Your task to perform on an android device: toggle data saver in the chrome app Image 0: 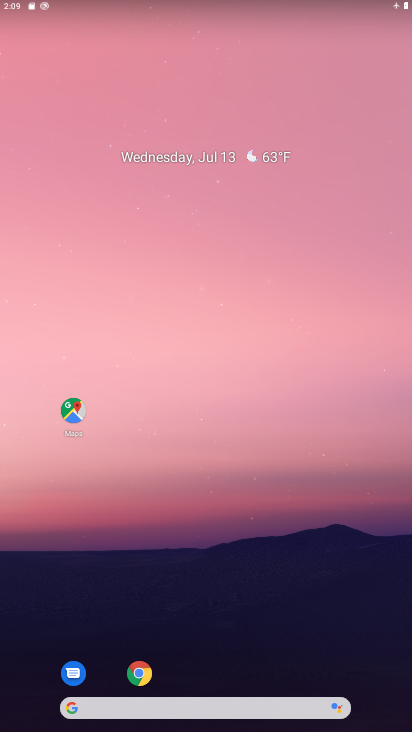
Step 0: drag from (228, 670) to (245, 420)
Your task to perform on an android device: toggle data saver in the chrome app Image 1: 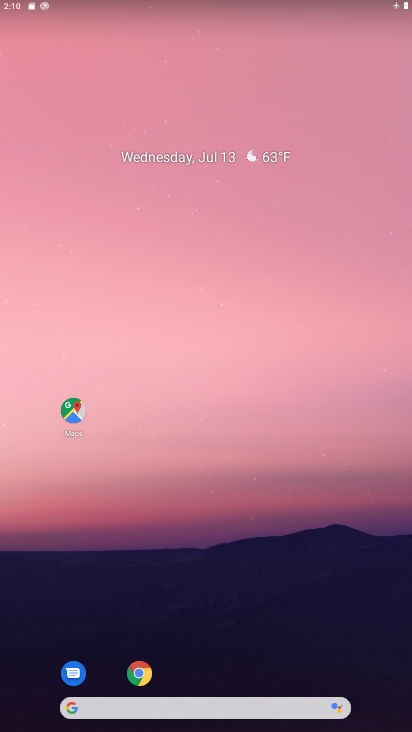
Step 1: drag from (278, 654) to (244, 393)
Your task to perform on an android device: toggle data saver in the chrome app Image 2: 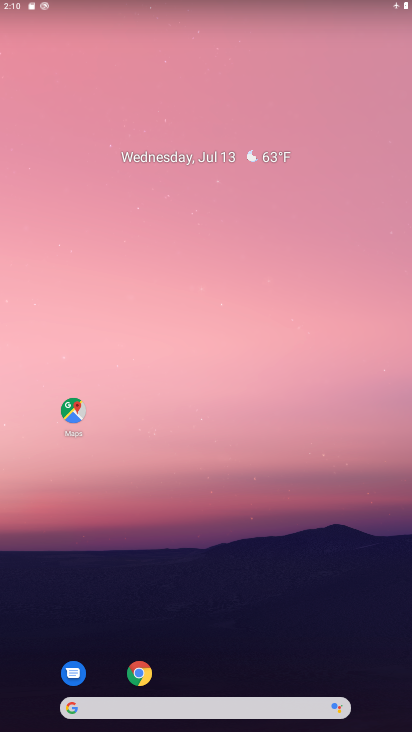
Step 2: drag from (257, 597) to (254, 302)
Your task to perform on an android device: toggle data saver in the chrome app Image 3: 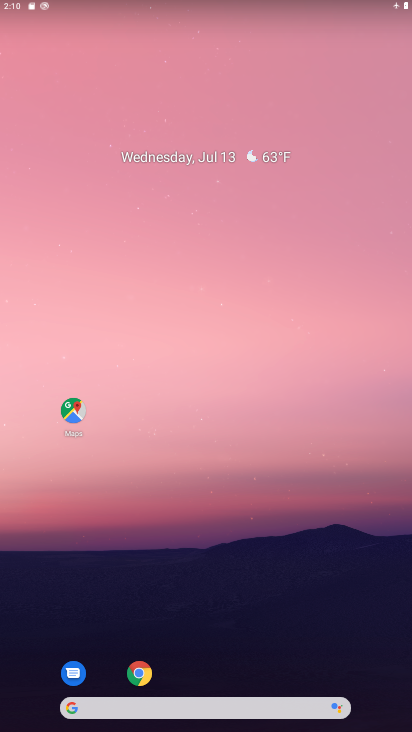
Step 3: drag from (214, 584) to (265, 269)
Your task to perform on an android device: toggle data saver in the chrome app Image 4: 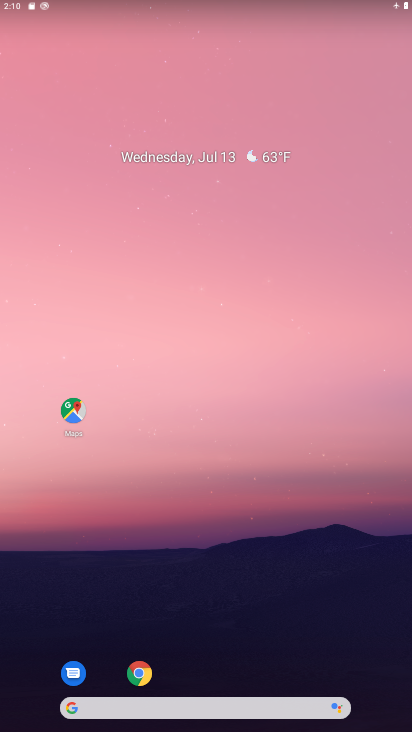
Step 4: drag from (225, 660) to (196, 269)
Your task to perform on an android device: toggle data saver in the chrome app Image 5: 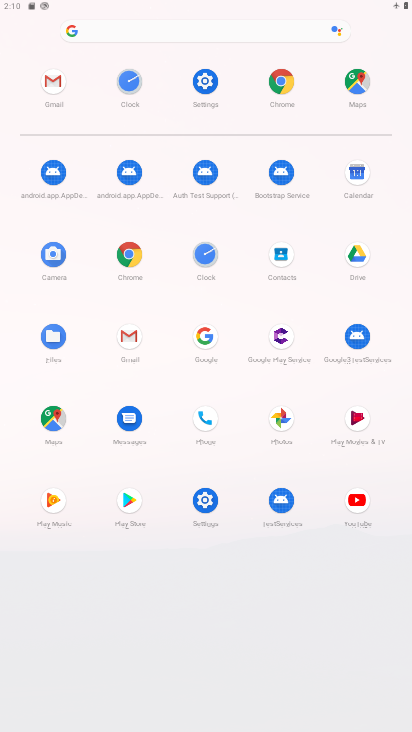
Step 5: click (293, 76)
Your task to perform on an android device: toggle data saver in the chrome app Image 6: 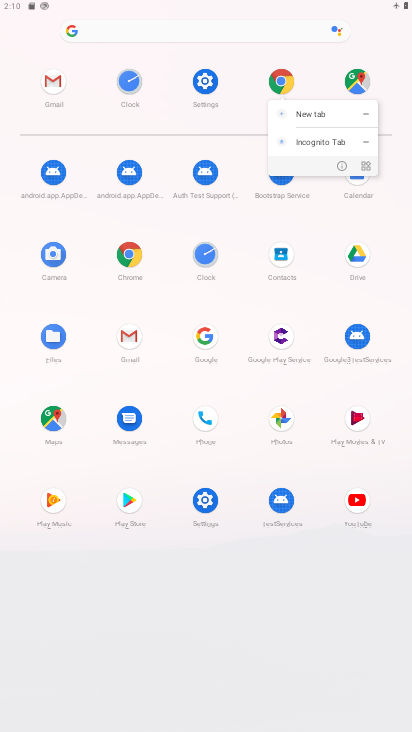
Step 6: click (284, 68)
Your task to perform on an android device: toggle data saver in the chrome app Image 7: 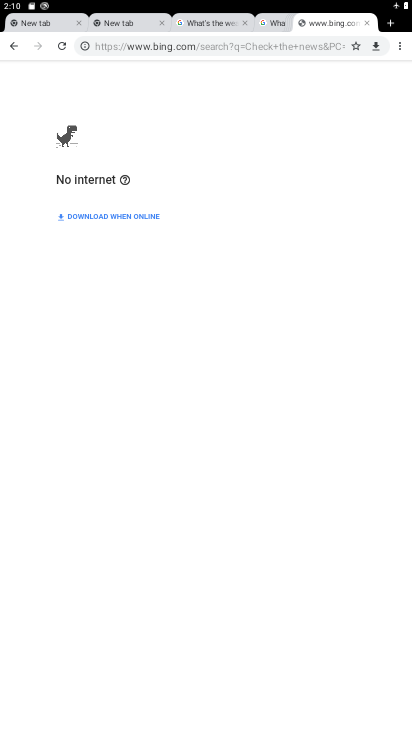
Step 7: click (404, 50)
Your task to perform on an android device: toggle data saver in the chrome app Image 8: 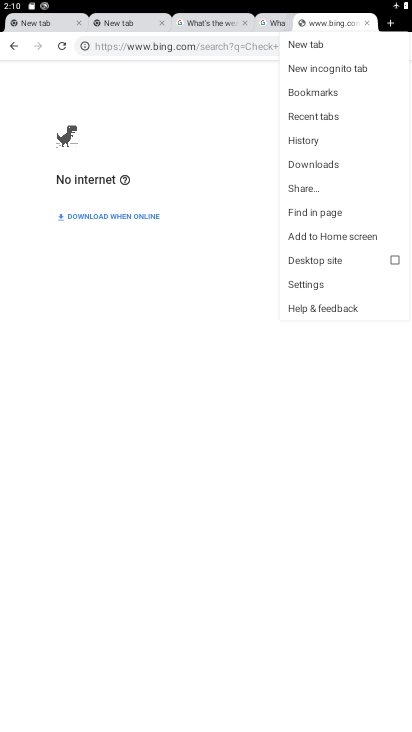
Step 8: click (322, 287)
Your task to perform on an android device: toggle data saver in the chrome app Image 9: 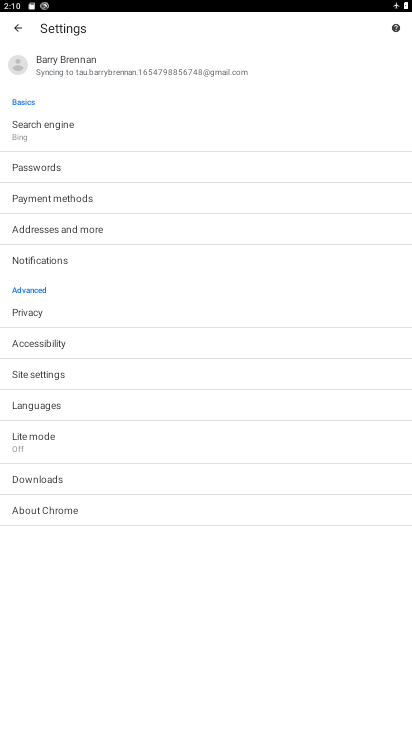
Step 9: click (110, 428)
Your task to perform on an android device: toggle data saver in the chrome app Image 10: 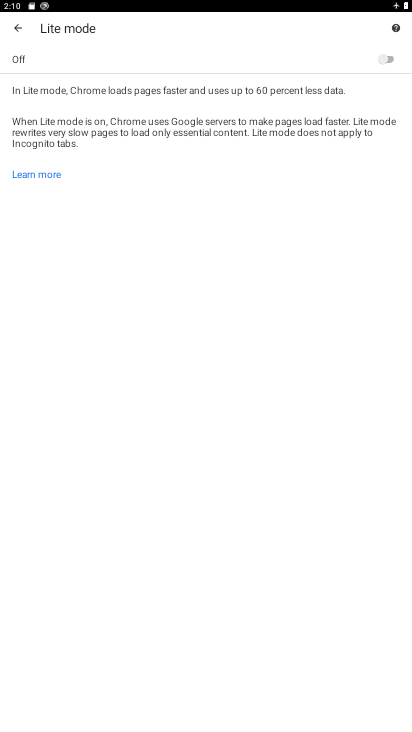
Step 10: click (379, 55)
Your task to perform on an android device: toggle data saver in the chrome app Image 11: 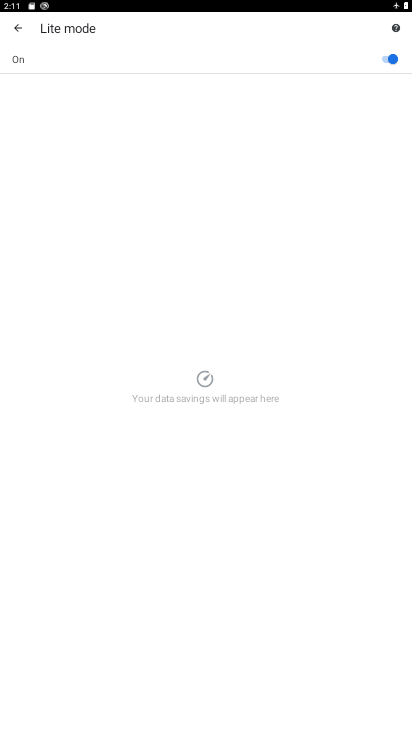
Step 11: task complete